Your task to perform on an android device: What's the weather? Image 0: 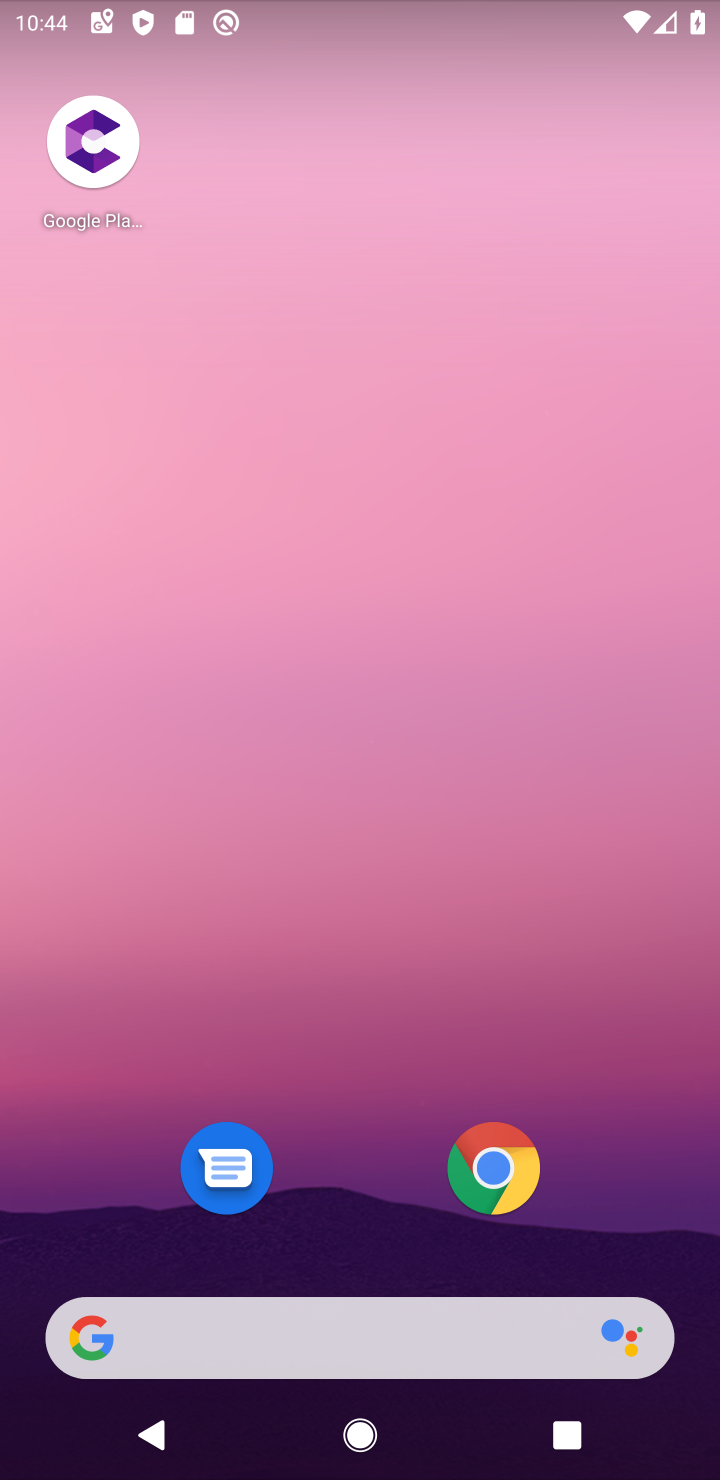
Step 0: press home button
Your task to perform on an android device: What's the weather? Image 1: 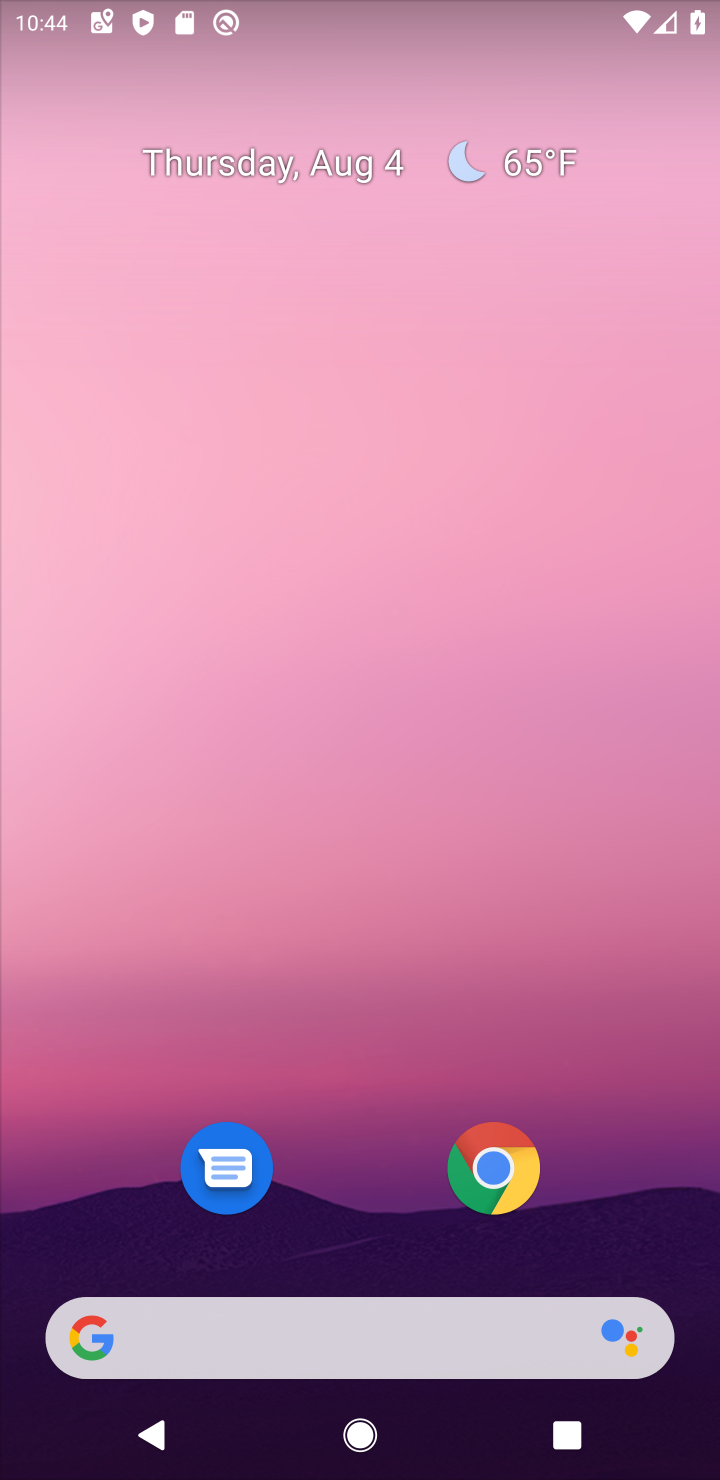
Step 1: drag from (656, 1226) to (466, 67)
Your task to perform on an android device: What's the weather? Image 2: 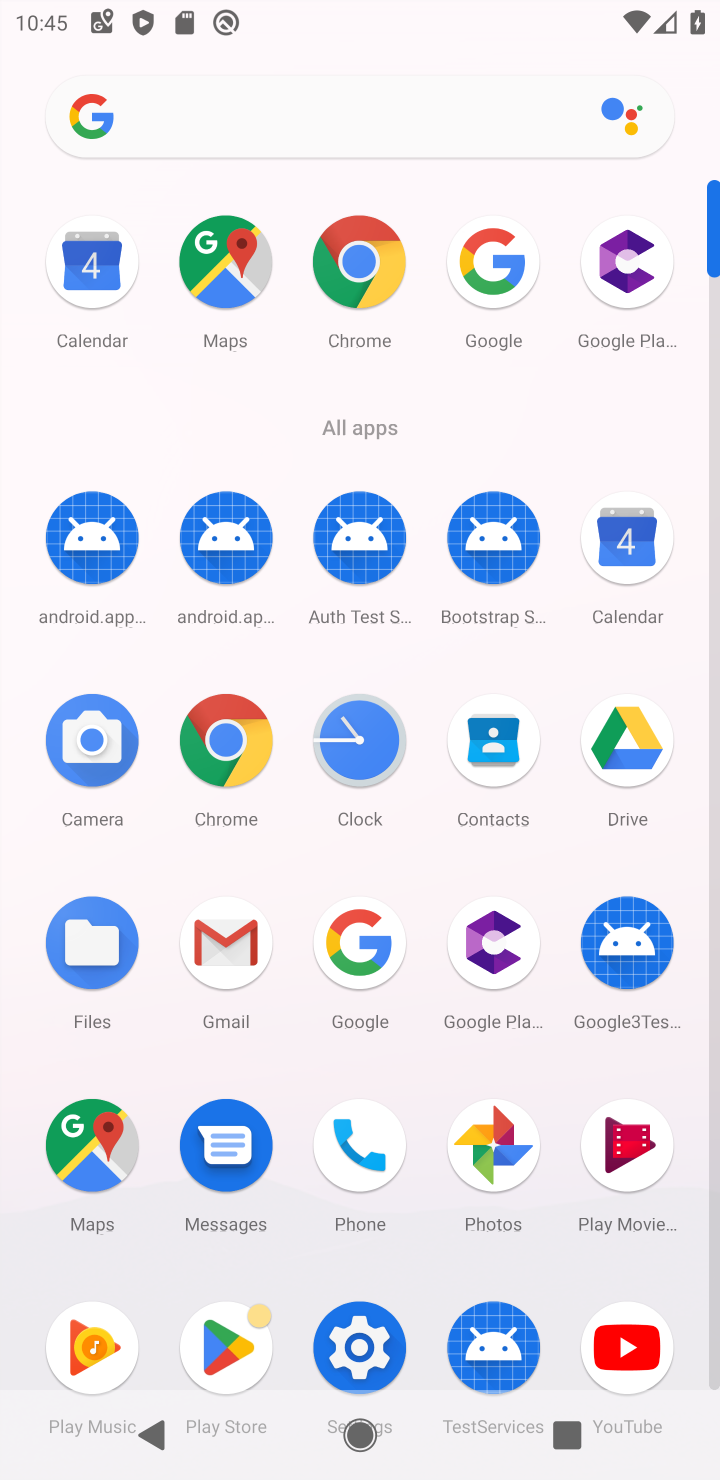
Step 2: click (385, 965)
Your task to perform on an android device: What's the weather? Image 3: 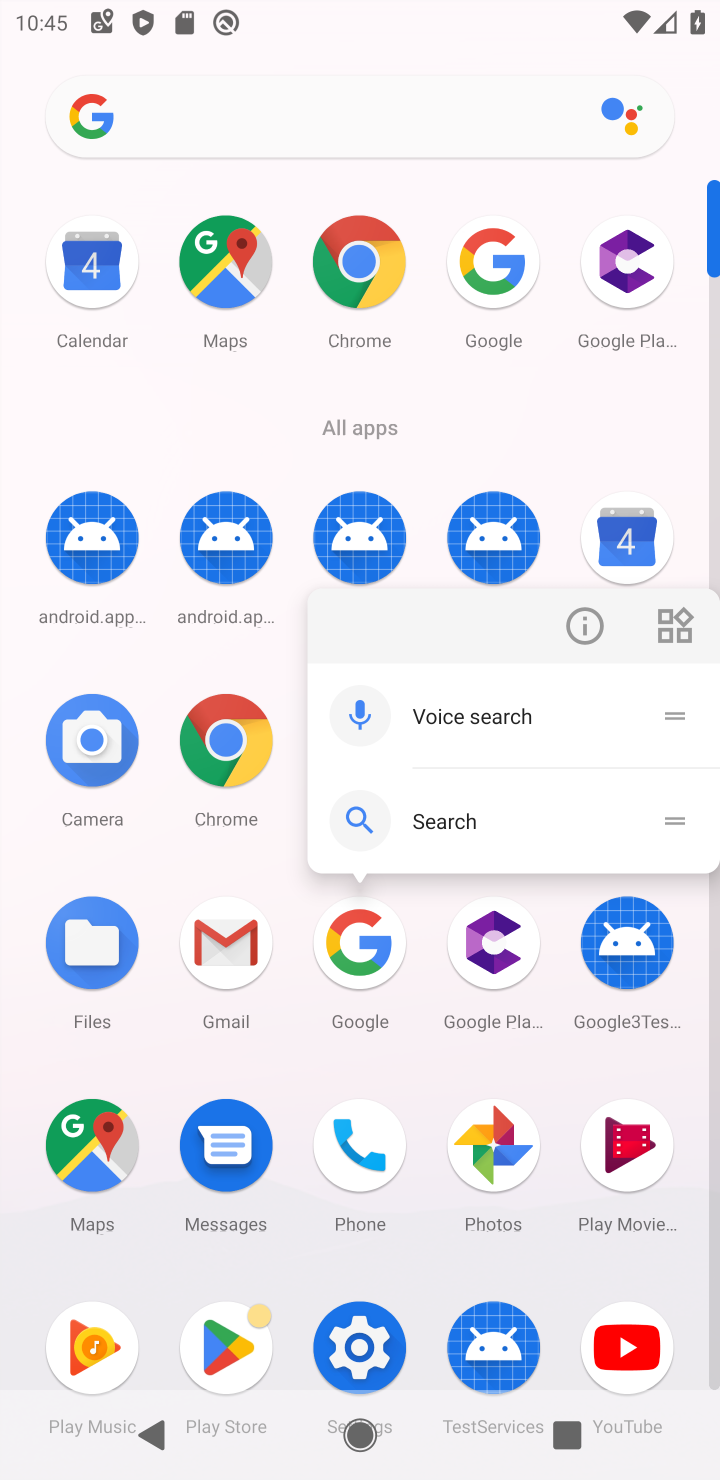
Step 3: click (385, 965)
Your task to perform on an android device: What's the weather? Image 4: 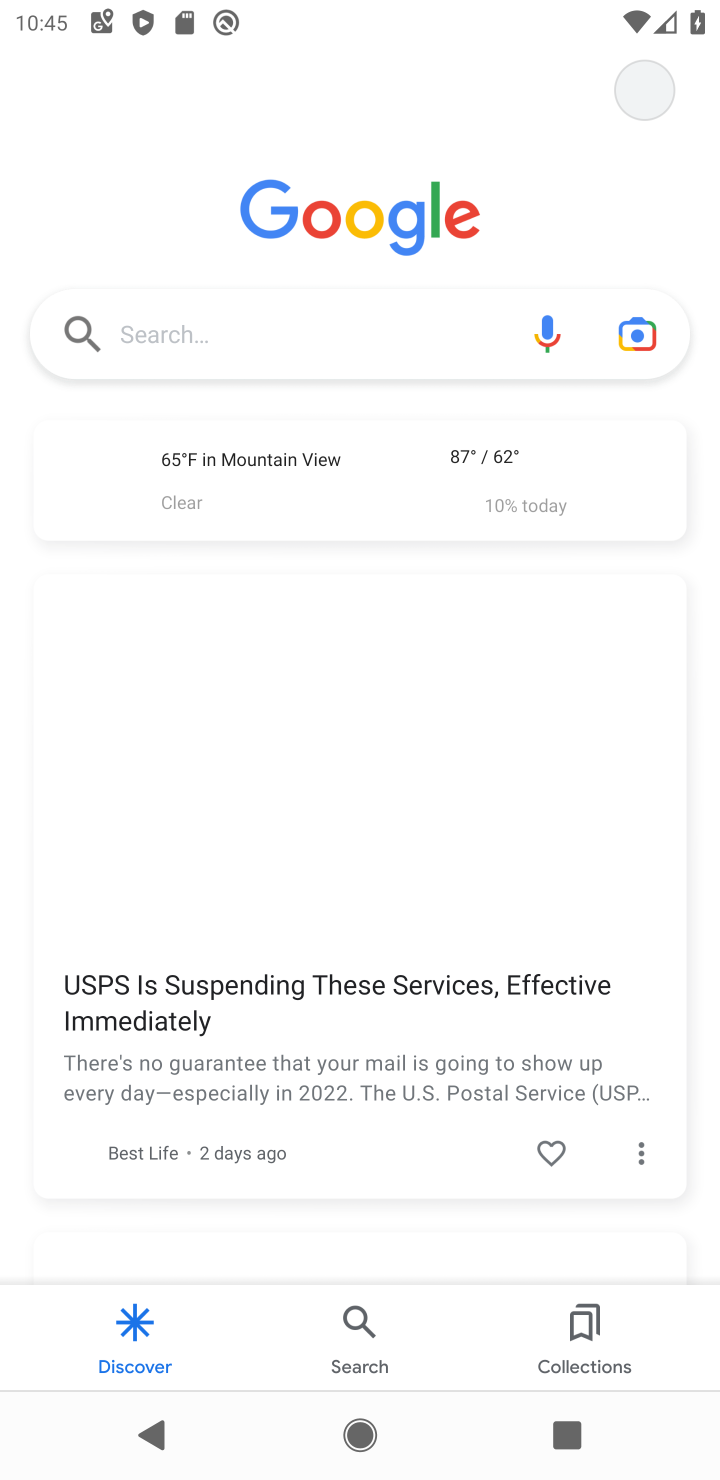
Step 4: click (255, 340)
Your task to perform on an android device: What's the weather? Image 5: 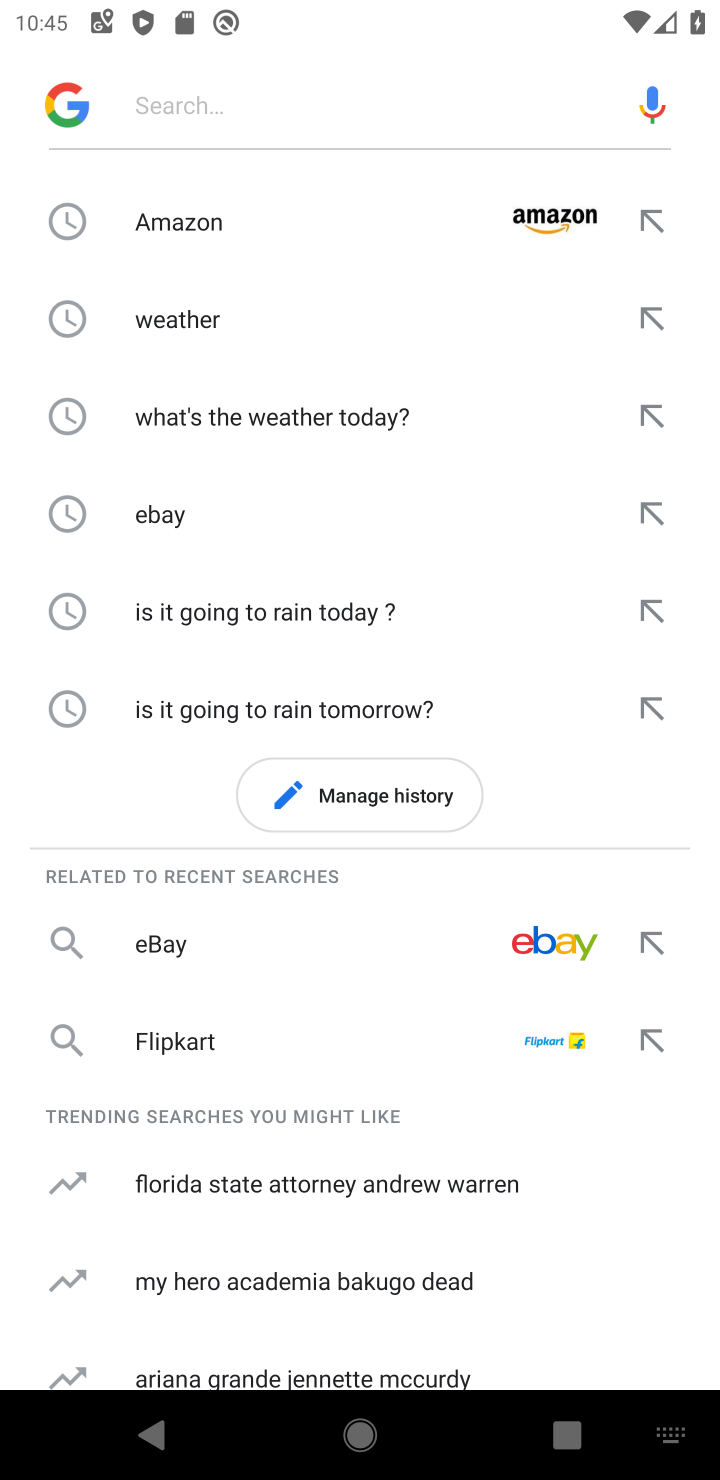
Step 5: type "What's the weather?"
Your task to perform on an android device: What's the weather? Image 6: 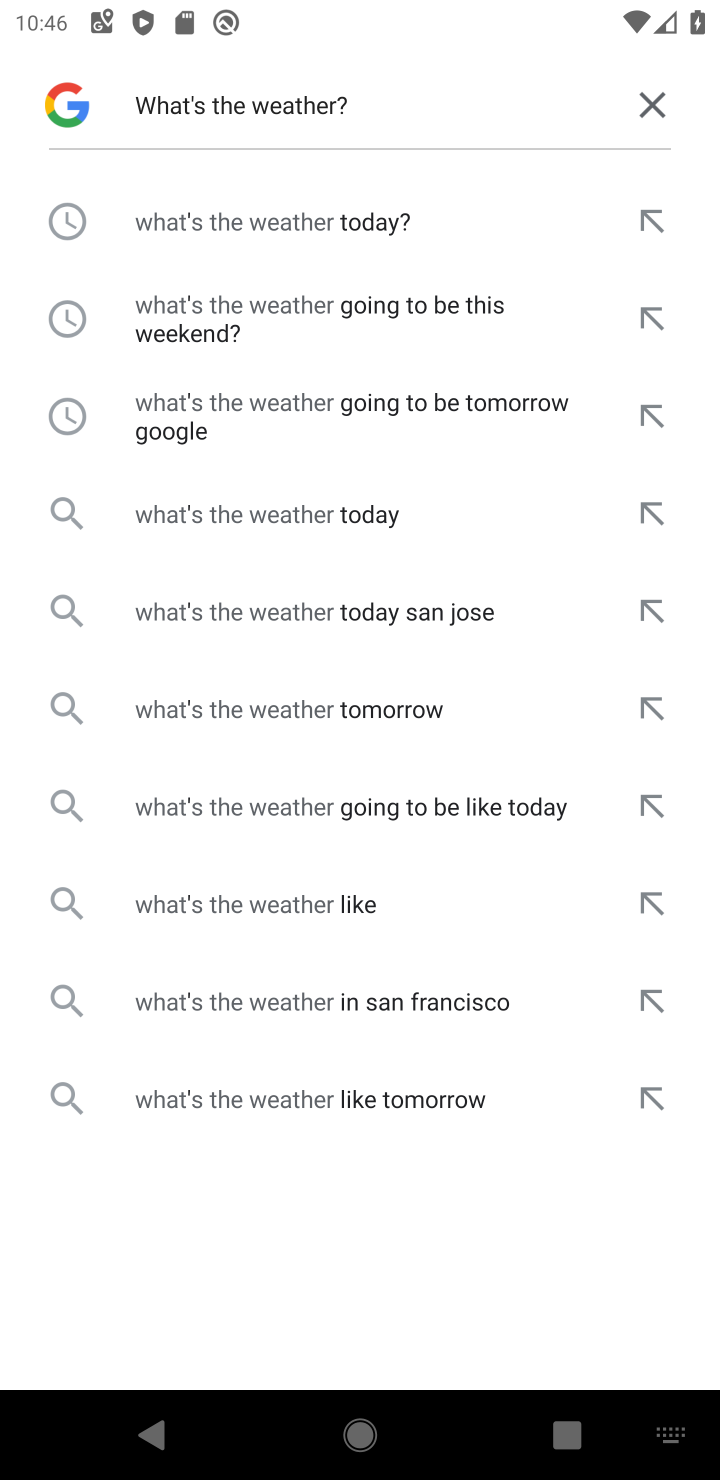
Step 6: click (310, 227)
Your task to perform on an android device: What's the weather? Image 7: 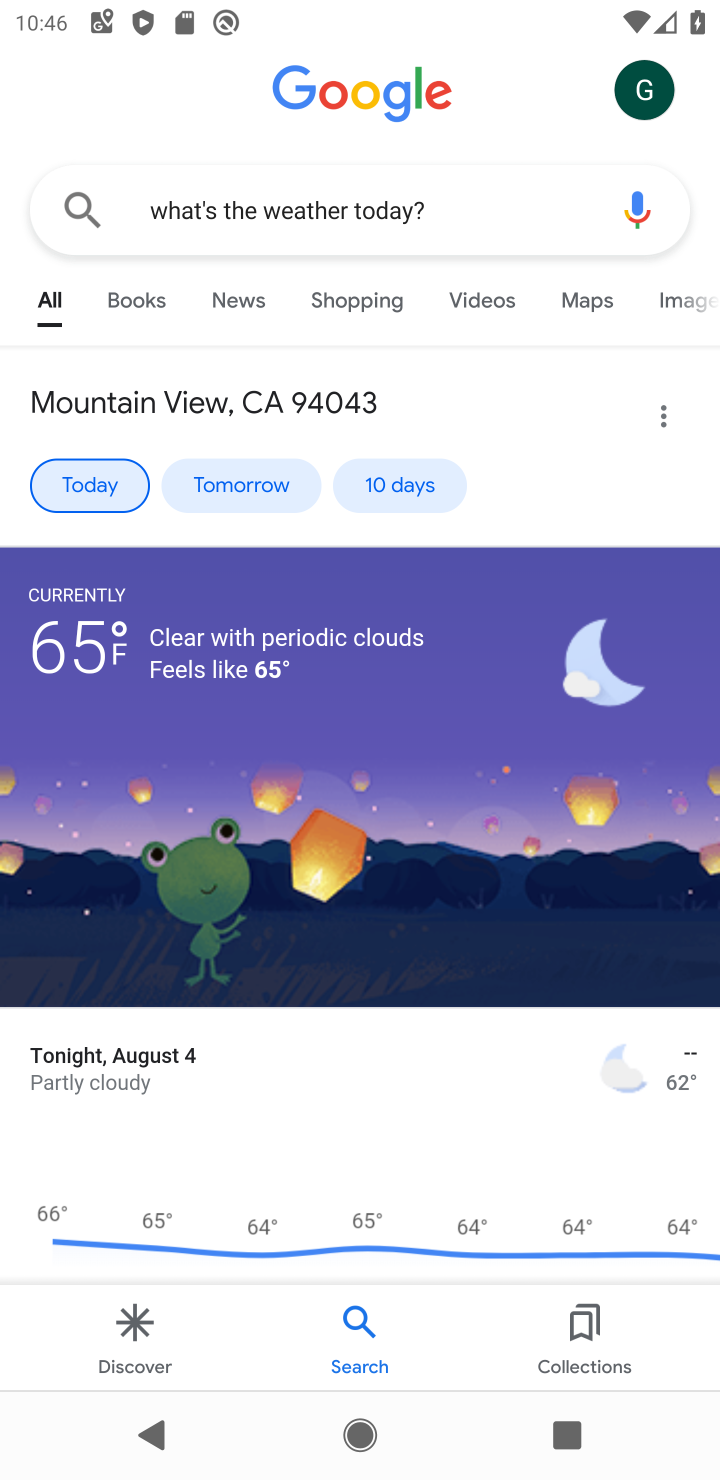
Step 7: task complete